Your task to perform on an android device: Set the phone to "Do not disturb". Image 0: 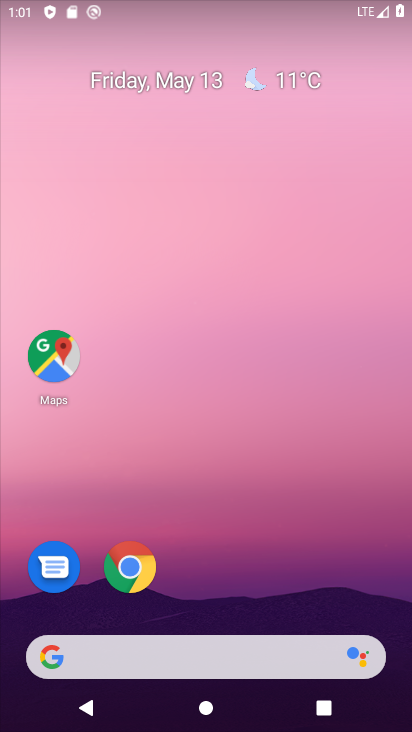
Step 0: click (289, 77)
Your task to perform on an android device: Set the phone to "Do not disturb". Image 1: 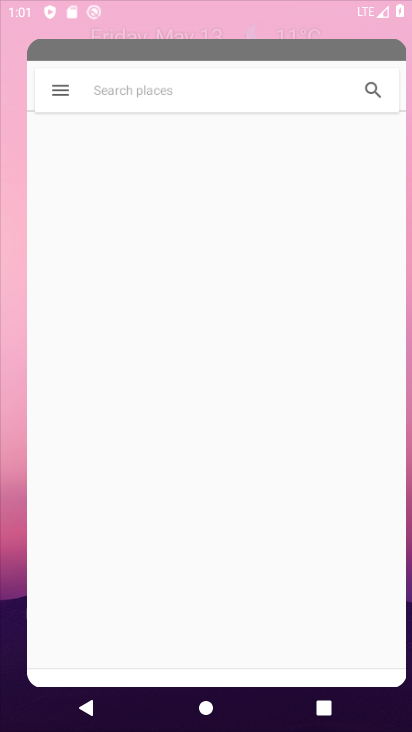
Step 1: drag from (269, 489) to (282, 119)
Your task to perform on an android device: Set the phone to "Do not disturb". Image 2: 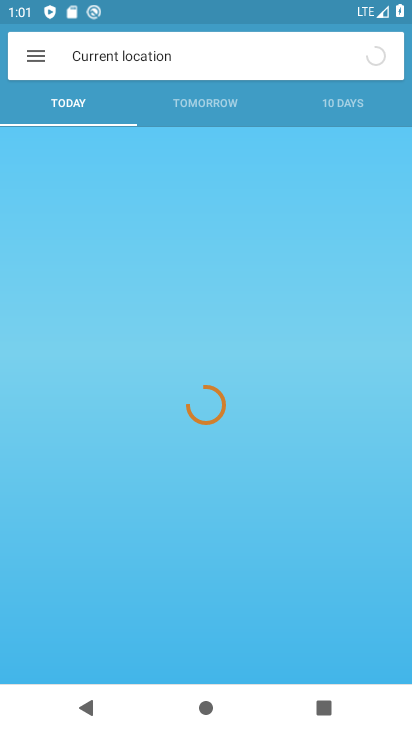
Step 2: press home button
Your task to perform on an android device: Set the phone to "Do not disturb". Image 3: 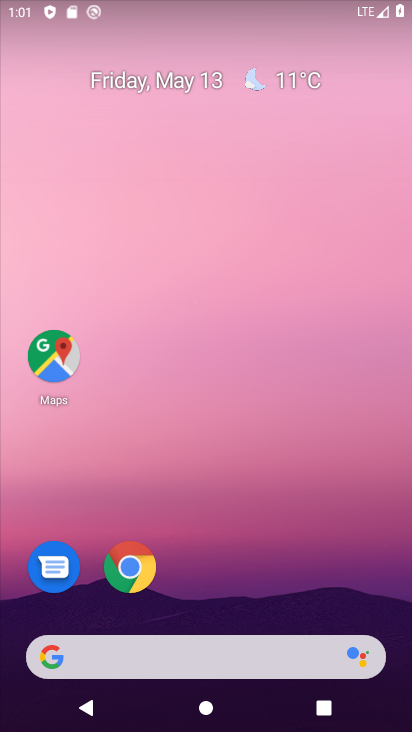
Step 3: drag from (190, 9) to (168, 541)
Your task to perform on an android device: Set the phone to "Do not disturb". Image 4: 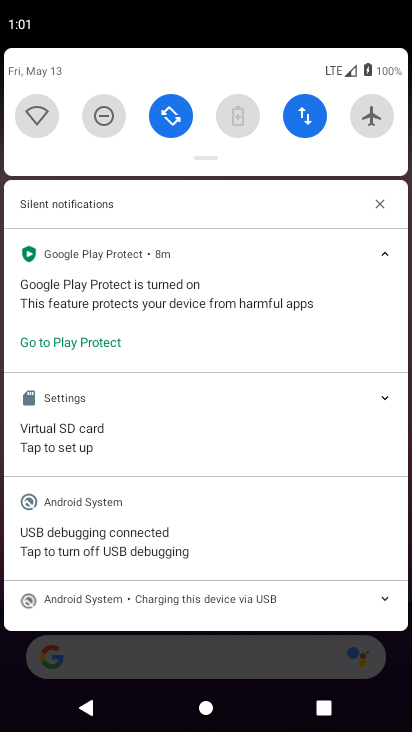
Step 4: click (101, 117)
Your task to perform on an android device: Set the phone to "Do not disturb". Image 5: 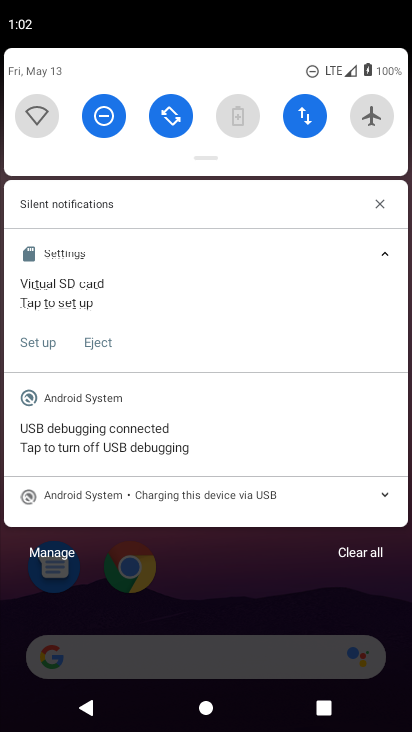
Step 5: task complete